Your task to perform on an android device: change the clock display to analog Image 0: 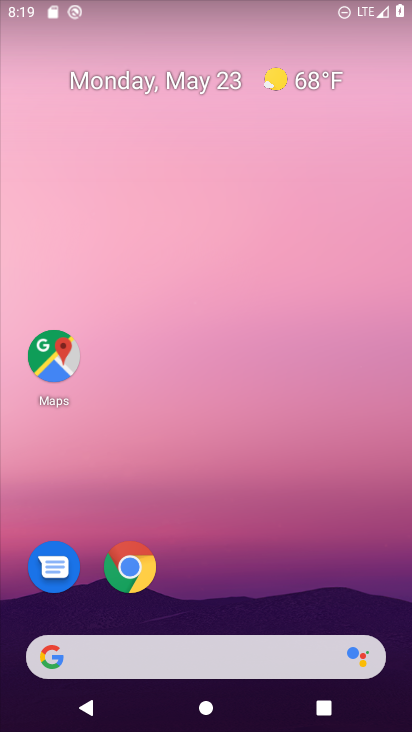
Step 0: drag from (208, 631) to (294, 96)
Your task to perform on an android device: change the clock display to analog Image 1: 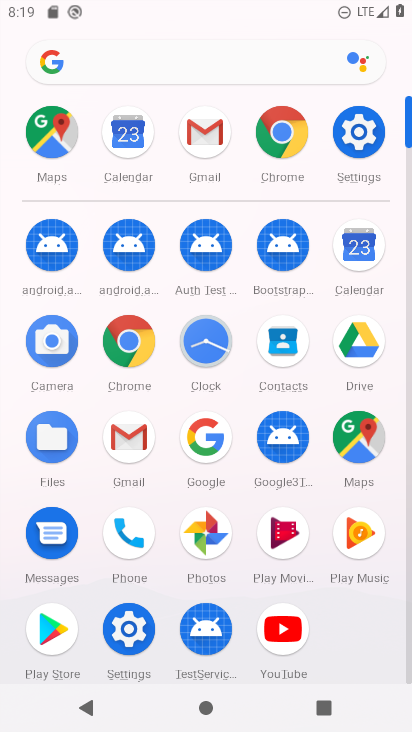
Step 1: click (208, 340)
Your task to perform on an android device: change the clock display to analog Image 2: 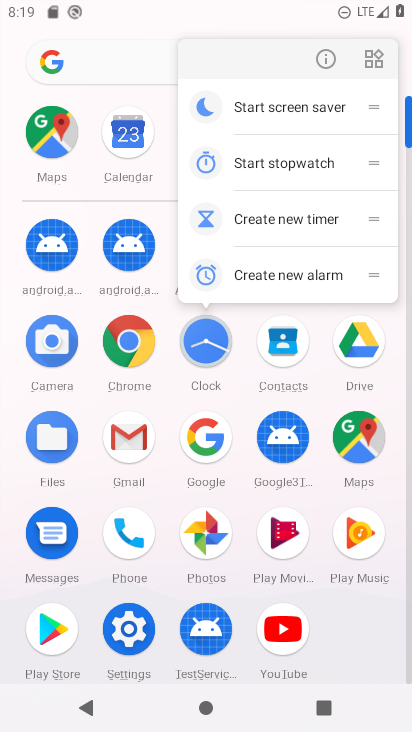
Step 2: click (328, 51)
Your task to perform on an android device: change the clock display to analog Image 3: 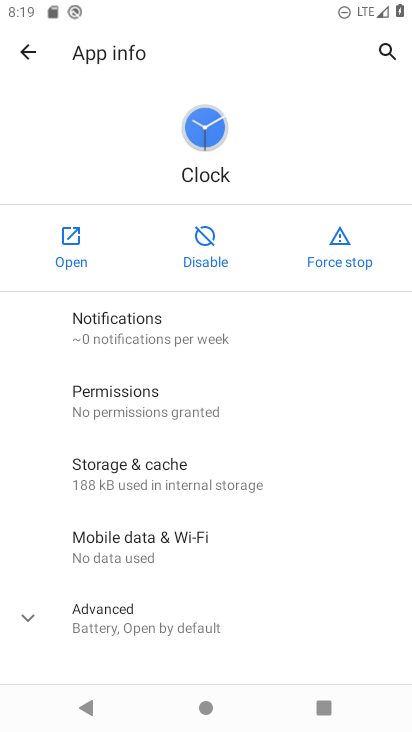
Step 3: click (68, 253)
Your task to perform on an android device: change the clock display to analog Image 4: 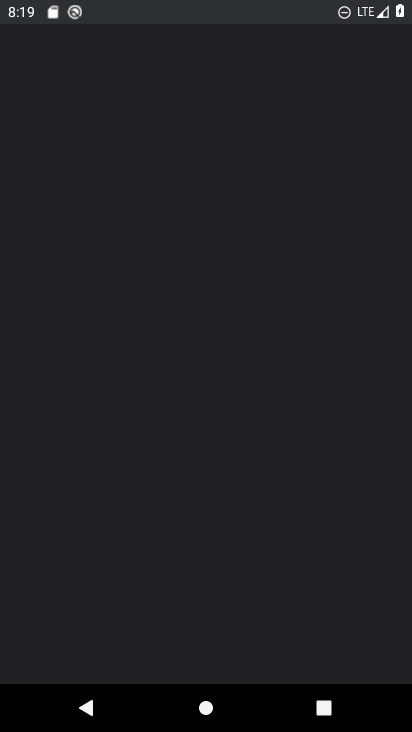
Step 4: drag from (199, 523) to (305, 119)
Your task to perform on an android device: change the clock display to analog Image 5: 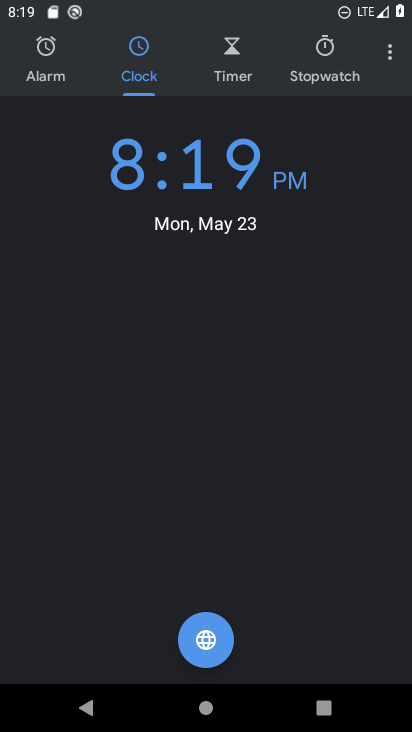
Step 5: click (386, 58)
Your task to perform on an android device: change the clock display to analog Image 6: 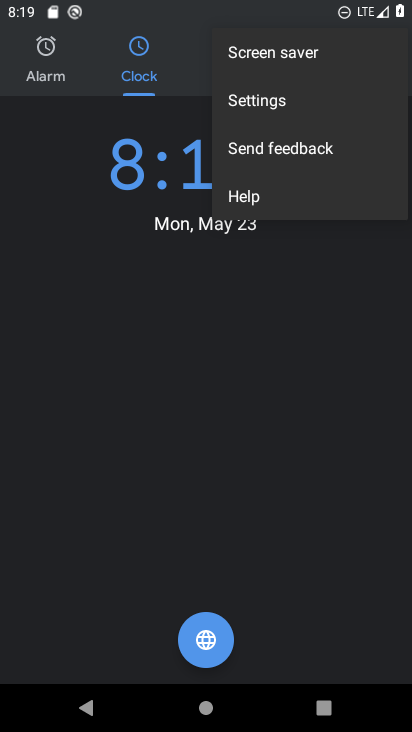
Step 6: click (268, 85)
Your task to perform on an android device: change the clock display to analog Image 7: 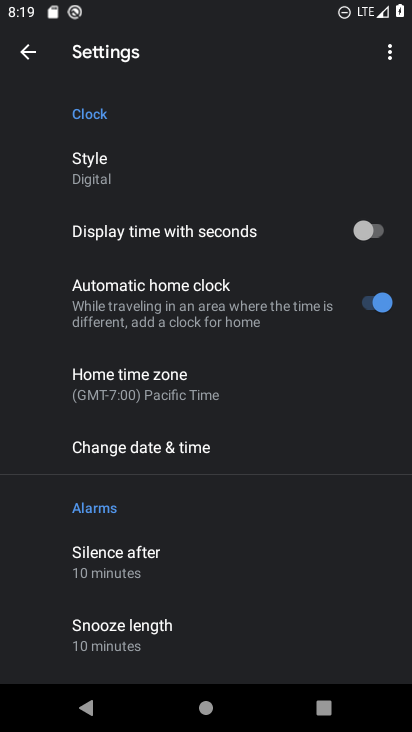
Step 7: click (119, 175)
Your task to perform on an android device: change the clock display to analog Image 8: 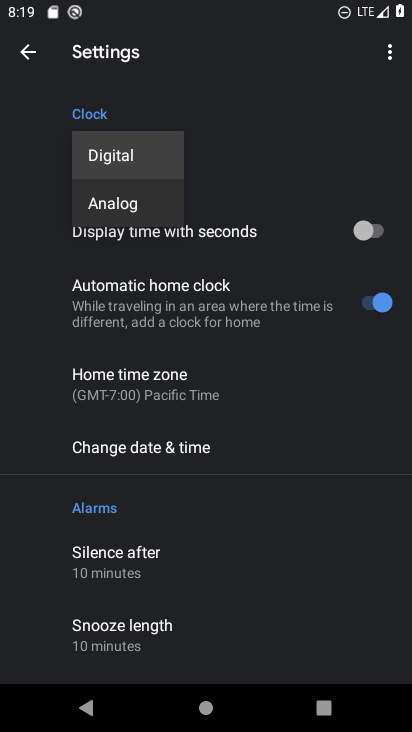
Step 8: click (123, 186)
Your task to perform on an android device: change the clock display to analog Image 9: 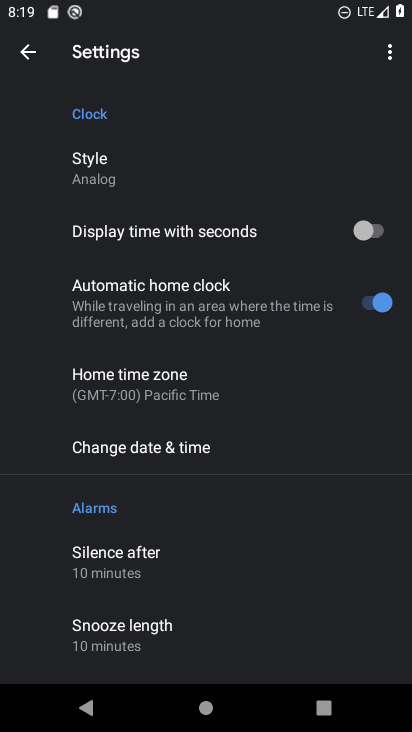
Step 9: task complete